Your task to perform on an android device: Search for the best rated Bluetooth earbuds on Ali express Image 0: 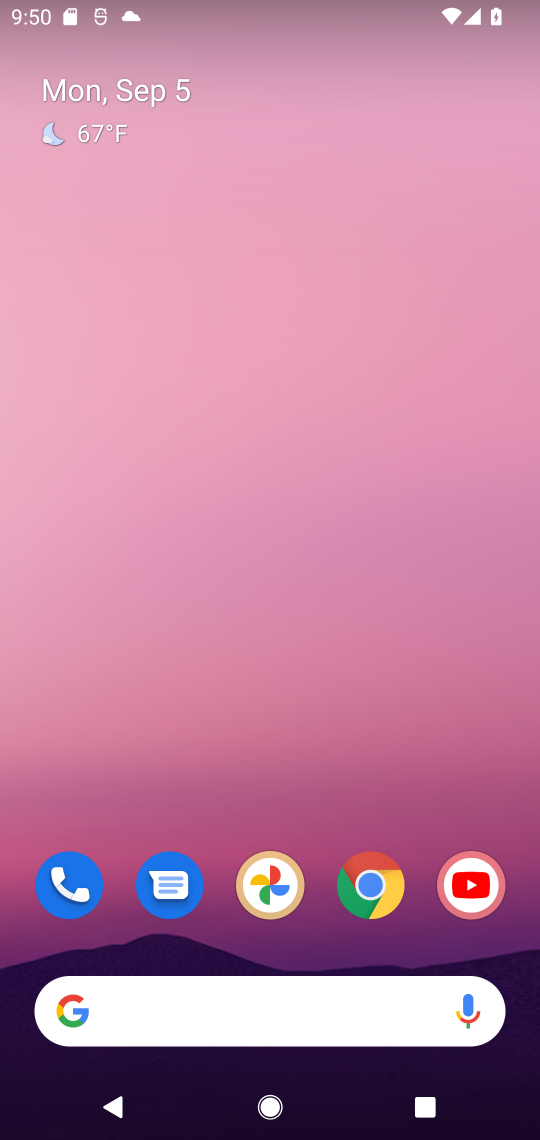
Step 0: drag from (301, 954) to (160, 15)
Your task to perform on an android device: Search for the best rated Bluetooth earbuds on Ali express Image 1: 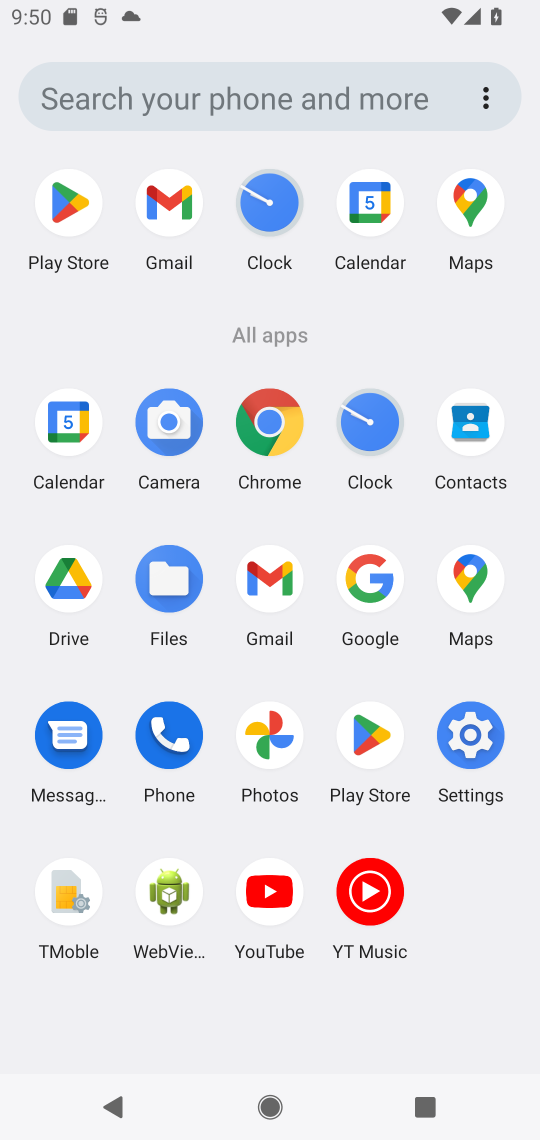
Step 1: click (269, 422)
Your task to perform on an android device: Search for the best rated Bluetooth earbuds on Ali express Image 2: 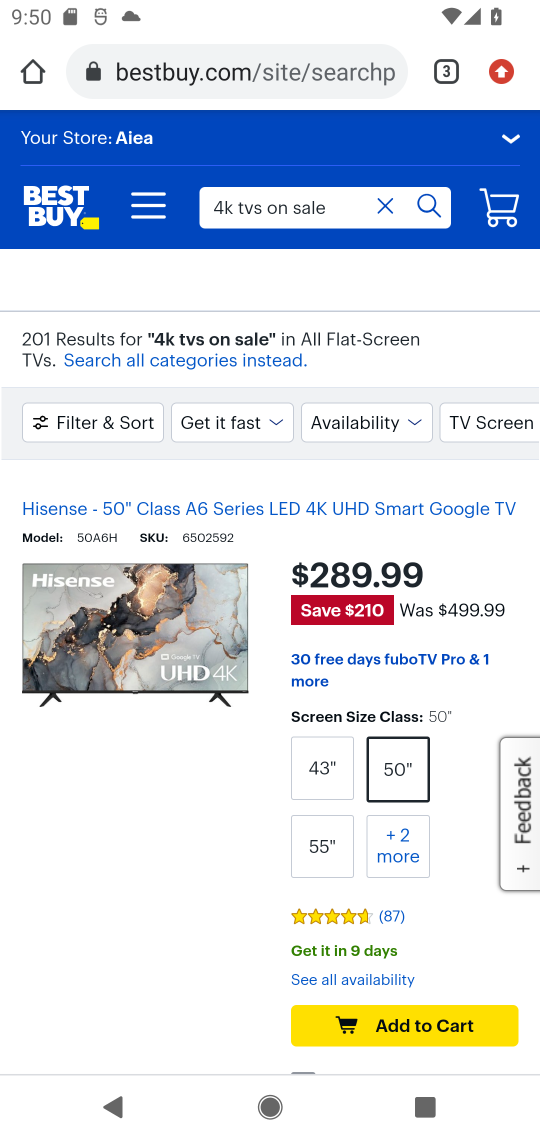
Step 2: drag from (501, 82) to (278, 234)
Your task to perform on an android device: Search for the best rated Bluetooth earbuds on Ali express Image 3: 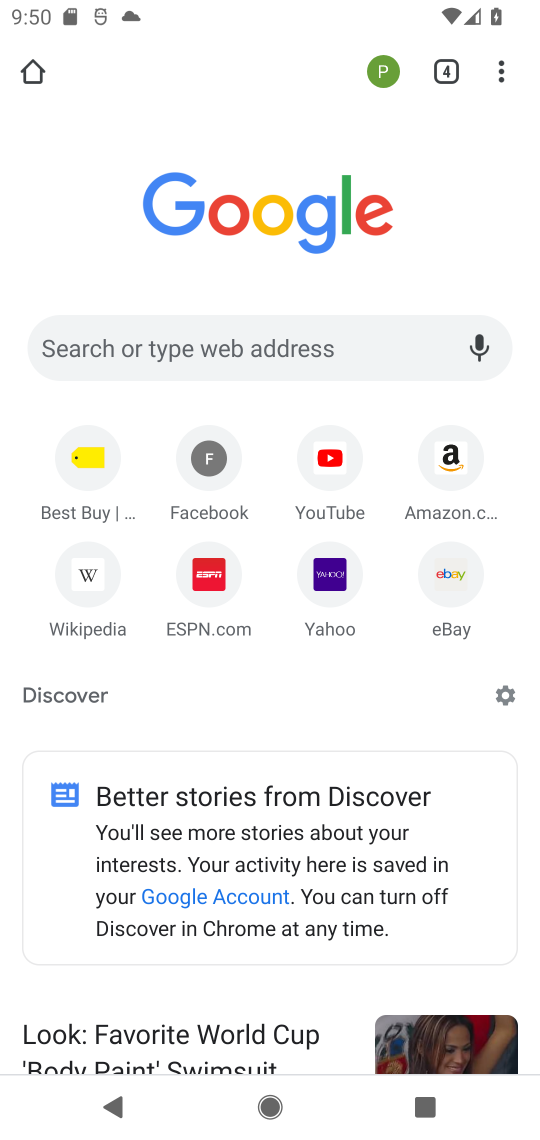
Step 3: click (196, 349)
Your task to perform on an android device: Search for the best rated Bluetooth earbuds on Ali express Image 4: 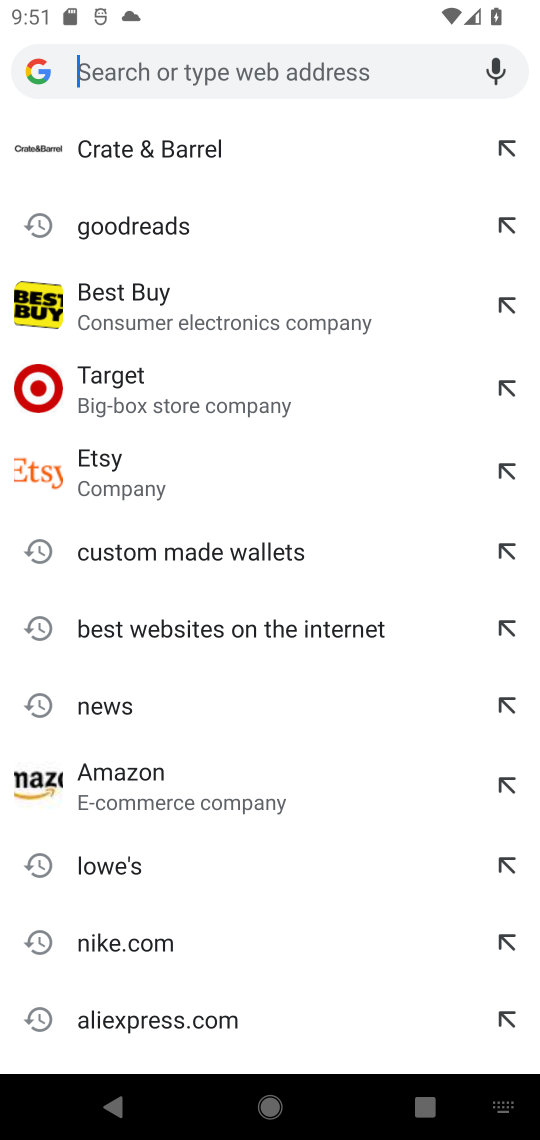
Step 4: type "Ali express"
Your task to perform on an android device: Search for the best rated Bluetooth earbuds on Ali express Image 5: 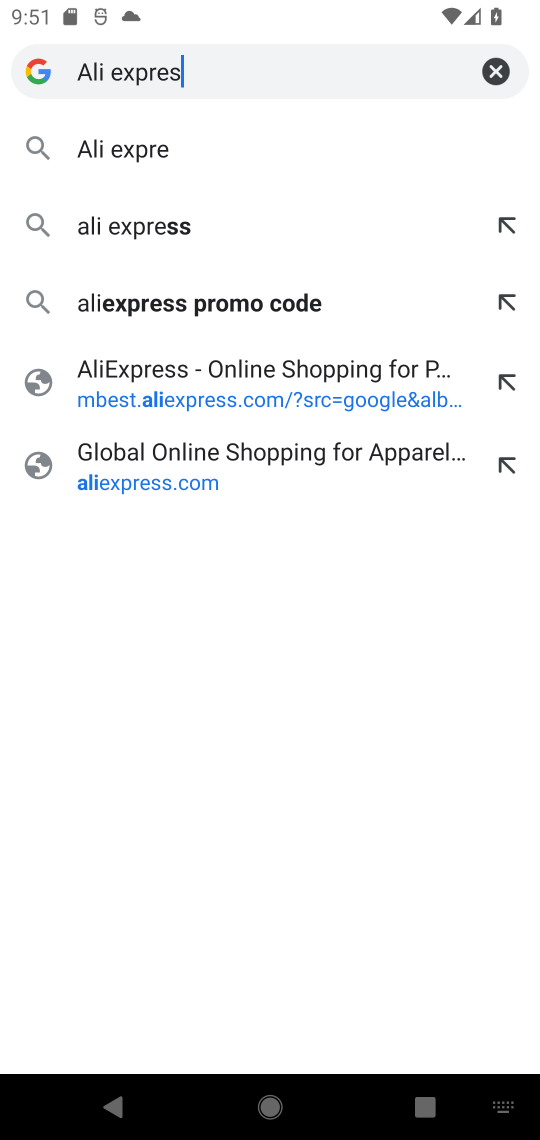
Step 5: type ""
Your task to perform on an android device: Search for the best rated Bluetooth earbuds on Ali express Image 6: 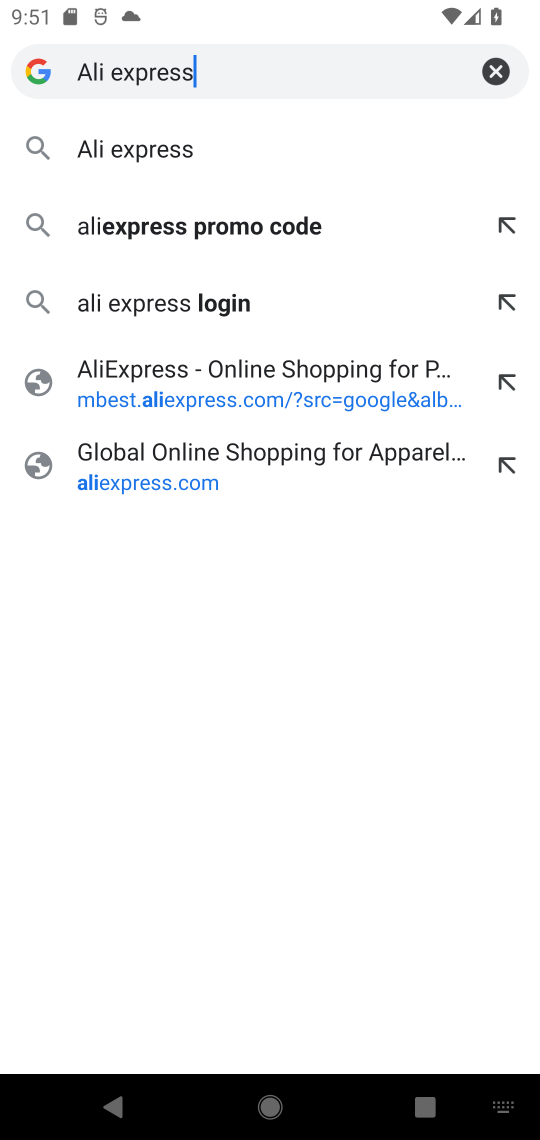
Step 6: click (140, 159)
Your task to perform on an android device: Search for the best rated Bluetooth earbuds on Ali express Image 7: 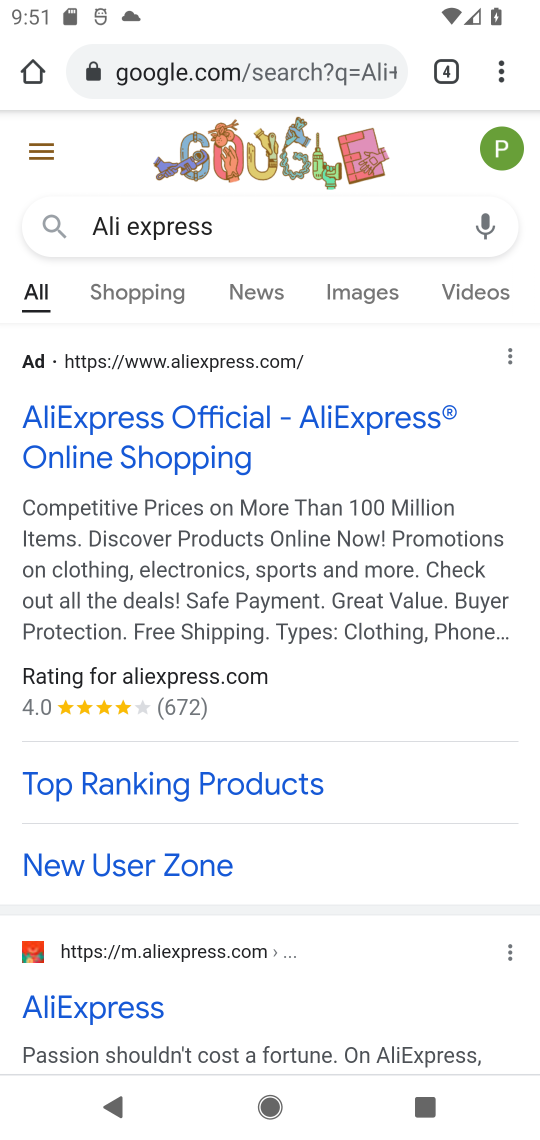
Step 7: click (86, 1004)
Your task to perform on an android device: Search for the best rated Bluetooth earbuds on Ali express Image 8: 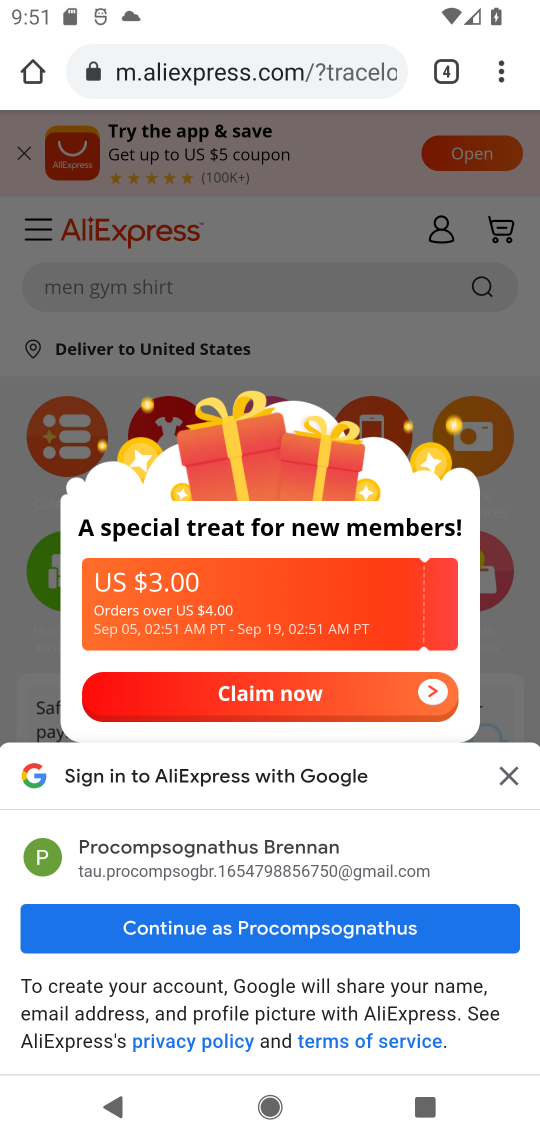
Step 8: click (497, 774)
Your task to perform on an android device: Search for the best rated Bluetooth earbuds on Ali express Image 9: 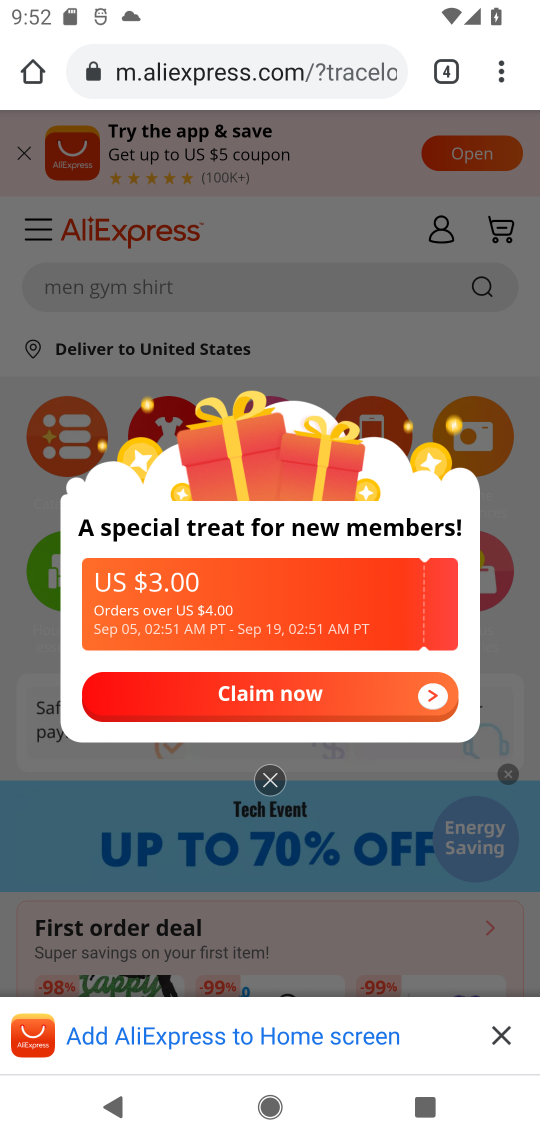
Step 9: click (272, 783)
Your task to perform on an android device: Search for the best rated Bluetooth earbuds on Ali express Image 10: 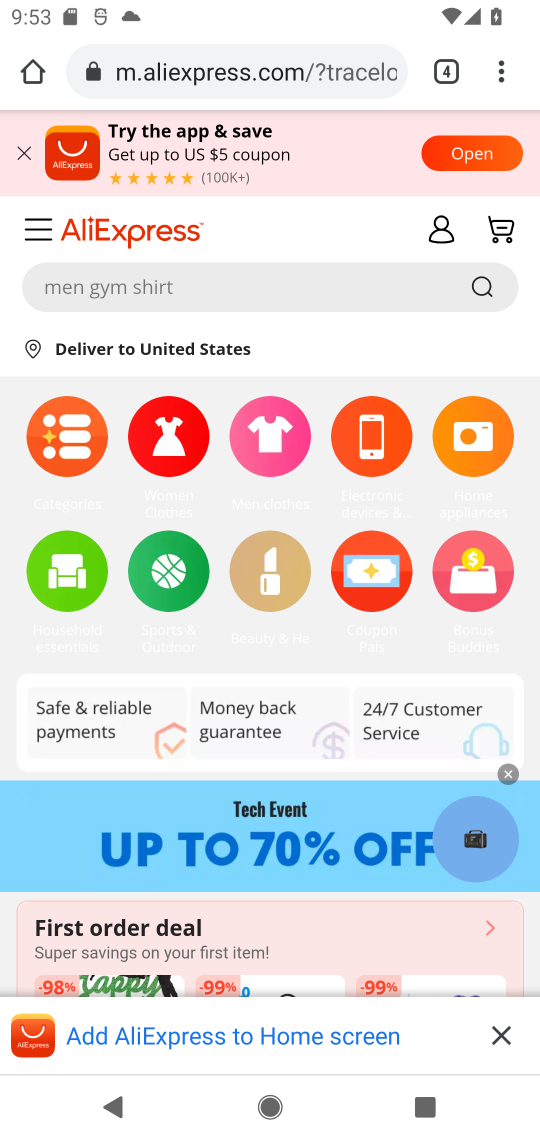
Step 10: click (223, 285)
Your task to perform on an android device: Search for the best rated Bluetooth earbuds on Ali express Image 11: 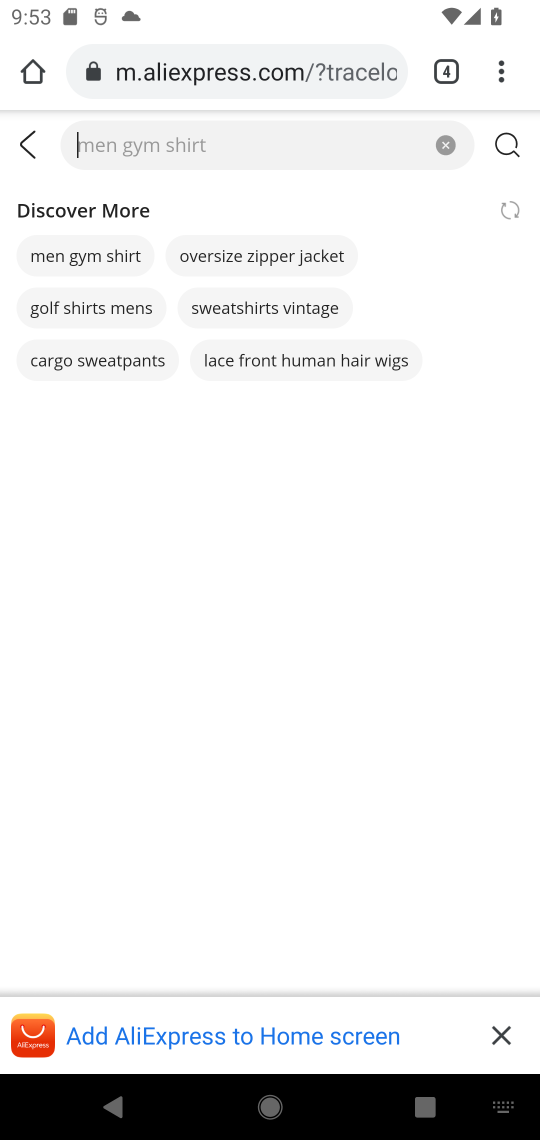
Step 11: type "Bluetooth earbuds "
Your task to perform on an android device: Search for the best rated Bluetooth earbuds on Ali express Image 12: 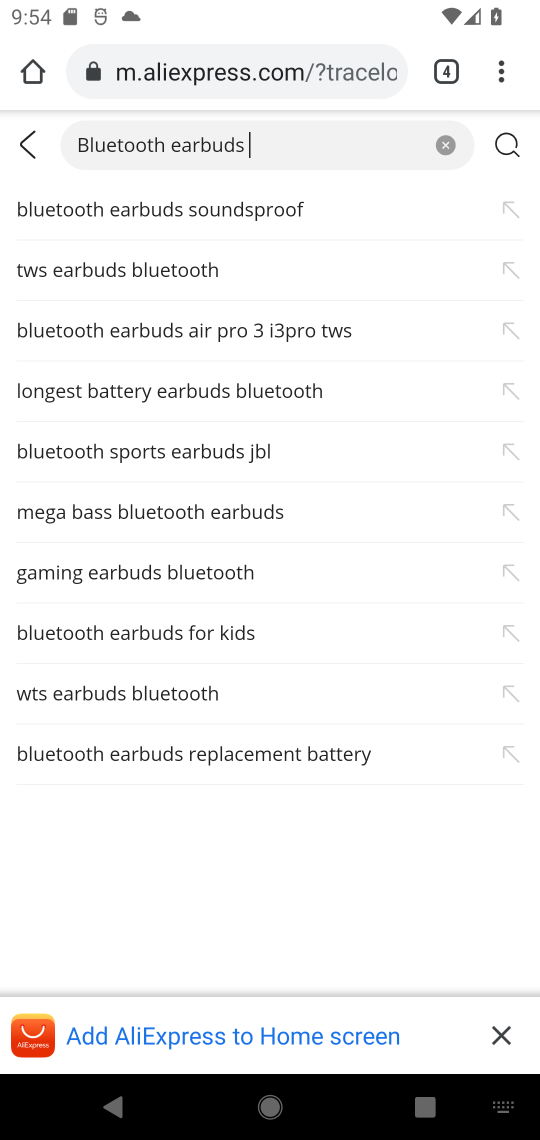
Step 12: click (503, 149)
Your task to perform on an android device: Search for the best rated Bluetooth earbuds on Ali express Image 13: 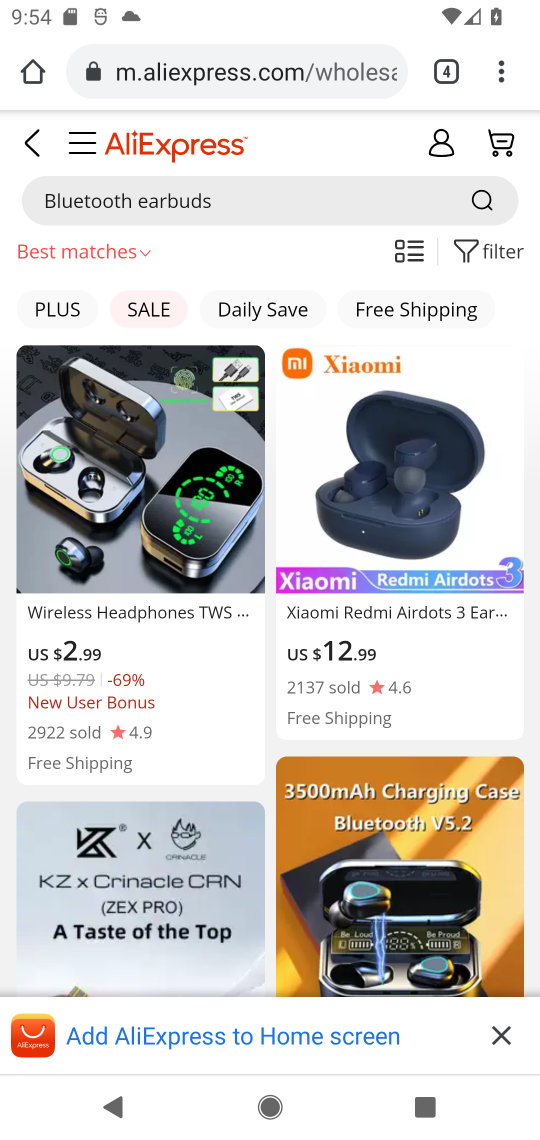
Step 13: task complete